Your task to perform on an android device: Open the Play Movies app and select the watchlist tab. Image 0: 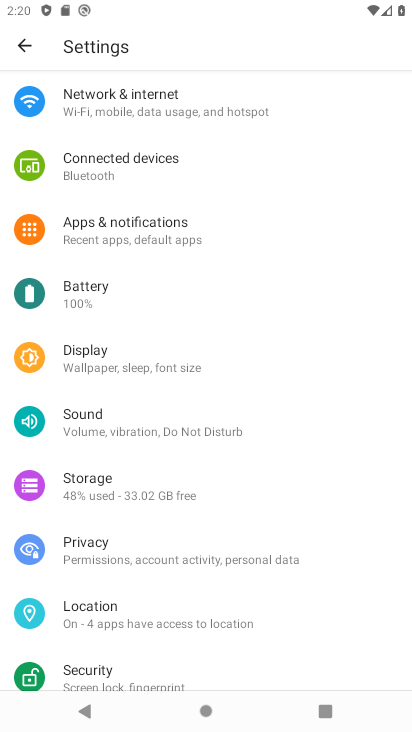
Step 0: press home button
Your task to perform on an android device: Open the Play Movies app and select the watchlist tab. Image 1: 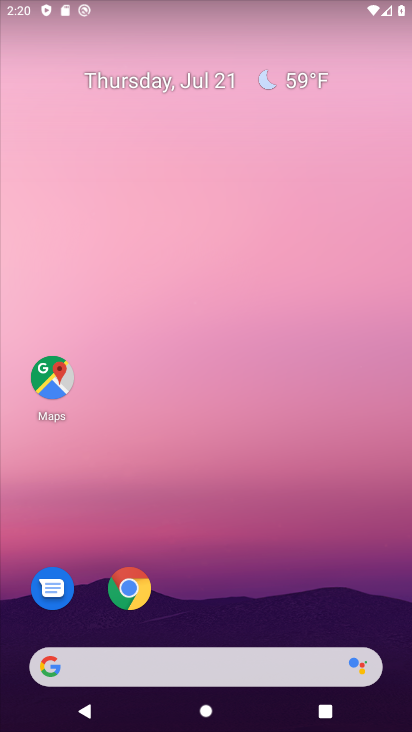
Step 1: drag from (397, 649) to (402, 153)
Your task to perform on an android device: Open the Play Movies app and select the watchlist tab. Image 2: 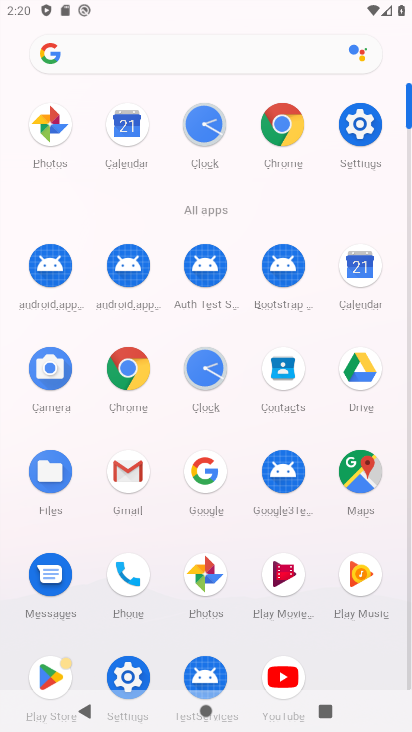
Step 2: click (276, 569)
Your task to perform on an android device: Open the Play Movies app and select the watchlist tab. Image 3: 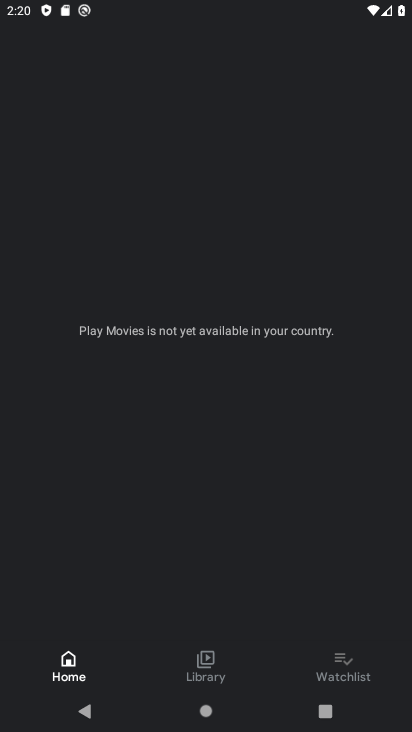
Step 3: click (315, 670)
Your task to perform on an android device: Open the Play Movies app and select the watchlist tab. Image 4: 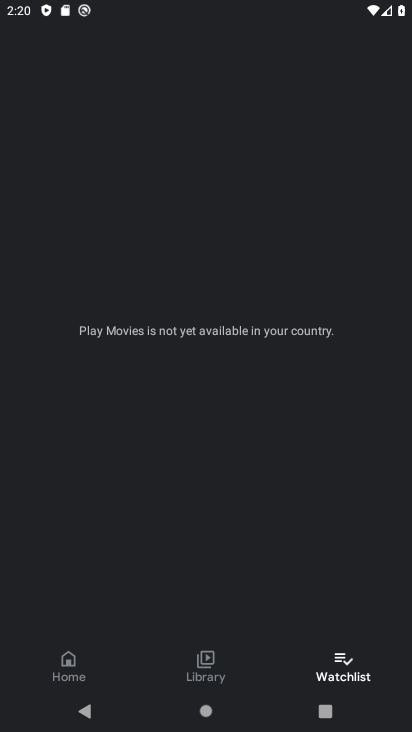
Step 4: task complete